Your task to perform on an android device: open app "Yahoo Mail" (install if not already installed) Image 0: 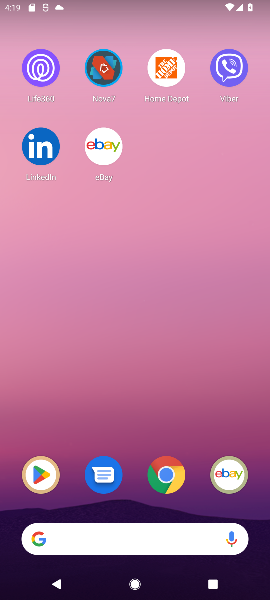
Step 0: drag from (127, 442) to (100, 34)
Your task to perform on an android device: open app "Yahoo Mail" (install if not already installed) Image 1: 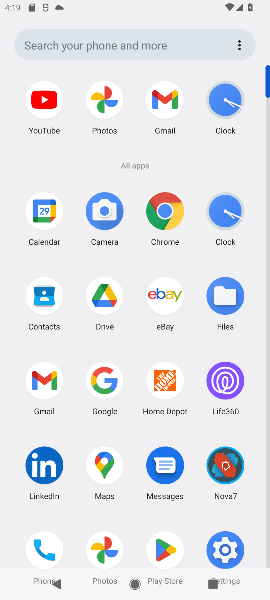
Step 1: click (162, 555)
Your task to perform on an android device: open app "Yahoo Mail" (install if not already installed) Image 2: 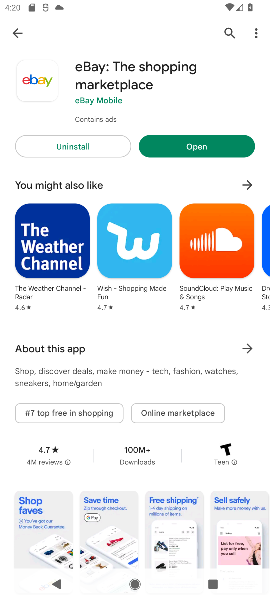
Step 2: click (19, 32)
Your task to perform on an android device: open app "Yahoo Mail" (install if not already installed) Image 3: 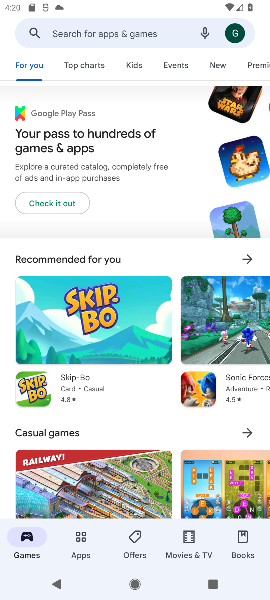
Step 3: click (72, 28)
Your task to perform on an android device: open app "Yahoo Mail" (install if not already installed) Image 4: 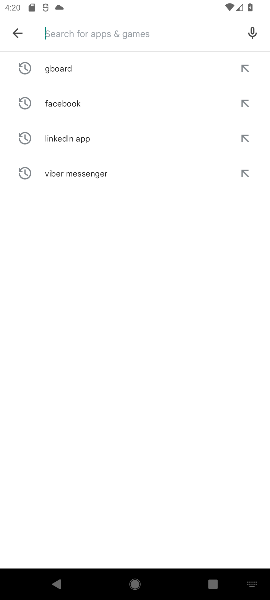
Step 4: type "Yahoo Mail"
Your task to perform on an android device: open app "Yahoo Mail" (install if not already installed) Image 5: 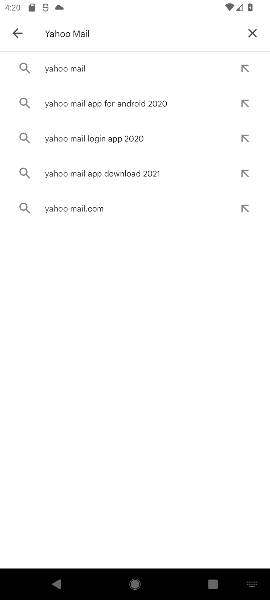
Step 5: click (63, 67)
Your task to perform on an android device: open app "Yahoo Mail" (install if not already installed) Image 6: 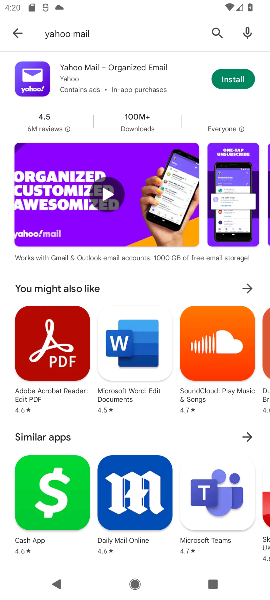
Step 6: task complete